Your task to perform on an android device: toggle javascript in the chrome app Image 0: 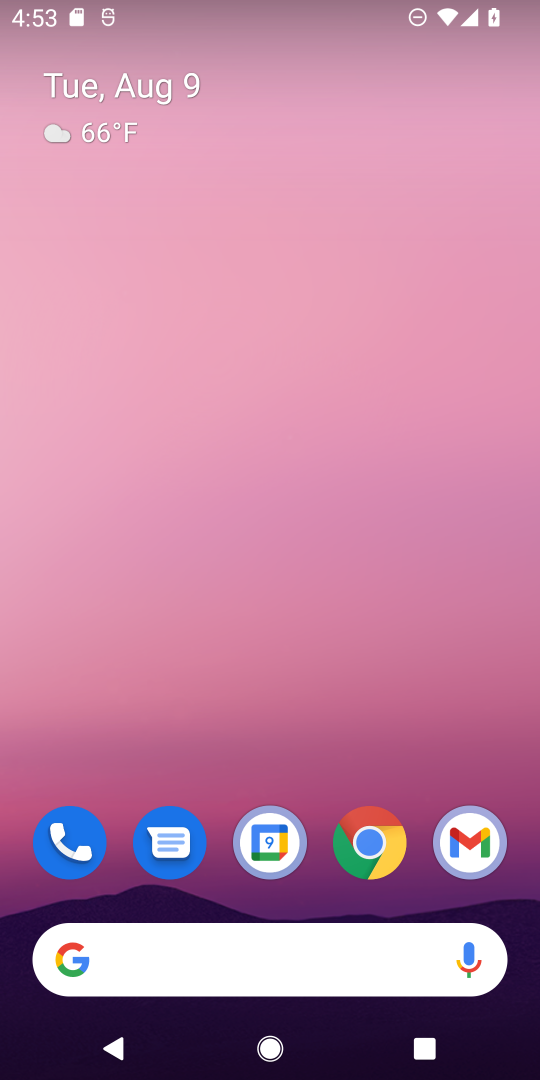
Step 0: drag from (361, 944) to (330, 423)
Your task to perform on an android device: toggle javascript in the chrome app Image 1: 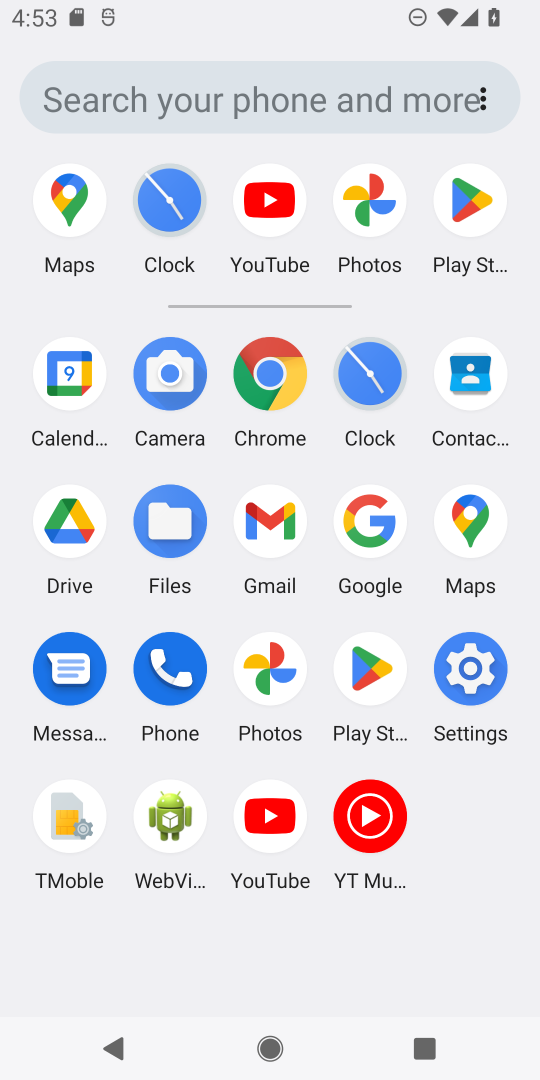
Step 1: click (278, 361)
Your task to perform on an android device: toggle javascript in the chrome app Image 2: 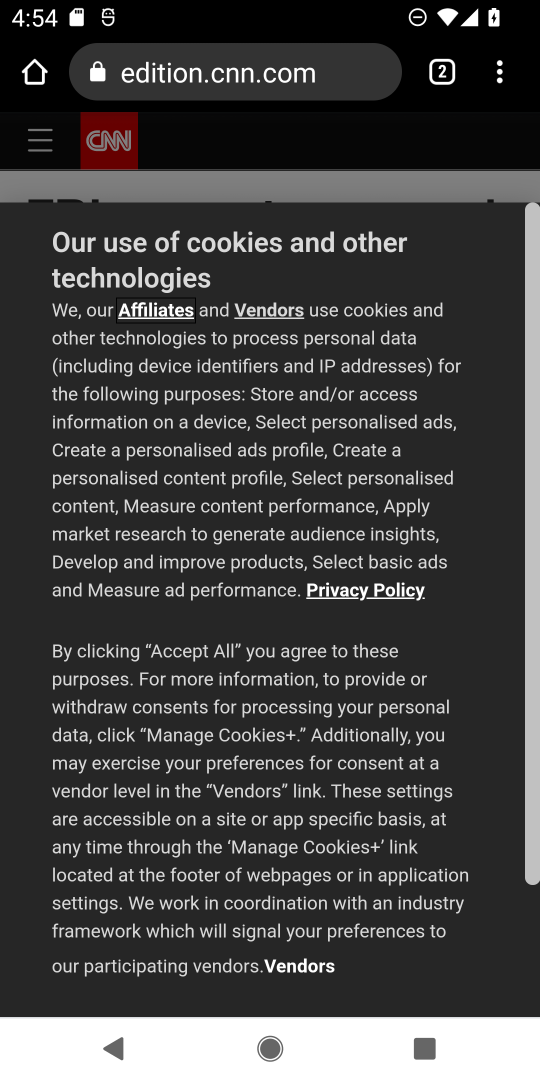
Step 2: click (512, 54)
Your task to perform on an android device: toggle javascript in the chrome app Image 3: 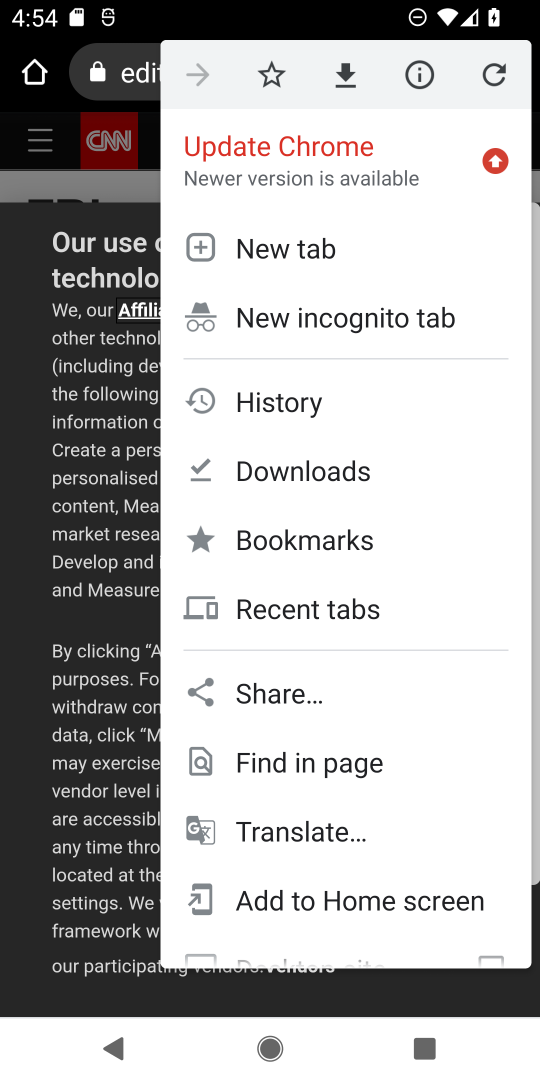
Step 3: drag from (419, 823) to (398, 291)
Your task to perform on an android device: toggle javascript in the chrome app Image 4: 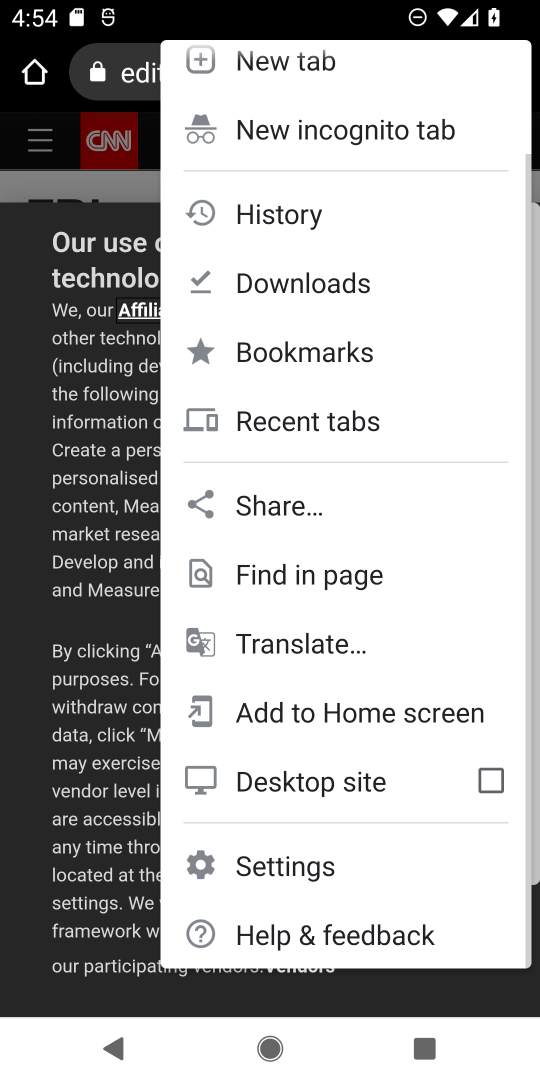
Step 4: click (332, 869)
Your task to perform on an android device: toggle javascript in the chrome app Image 5: 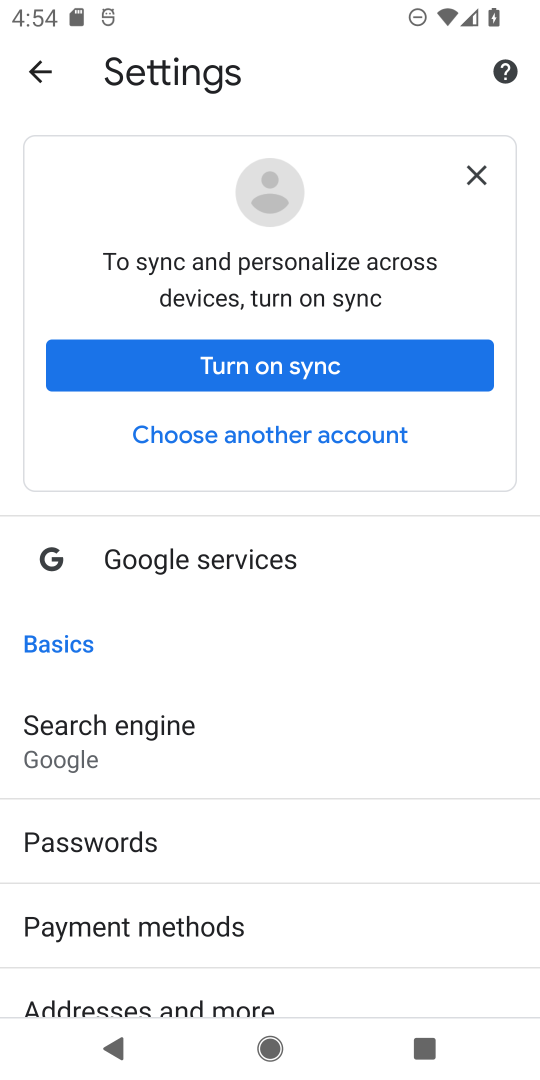
Step 5: drag from (447, 724) to (330, 134)
Your task to perform on an android device: toggle javascript in the chrome app Image 6: 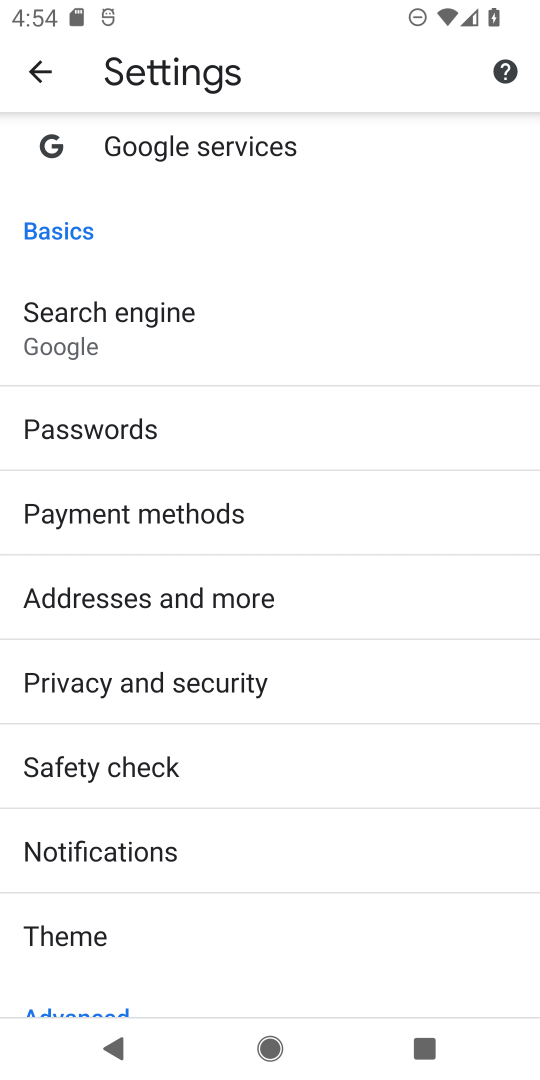
Step 6: drag from (299, 950) to (356, 440)
Your task to perform on an android device: toggle javascript in the chrome app Image 7: 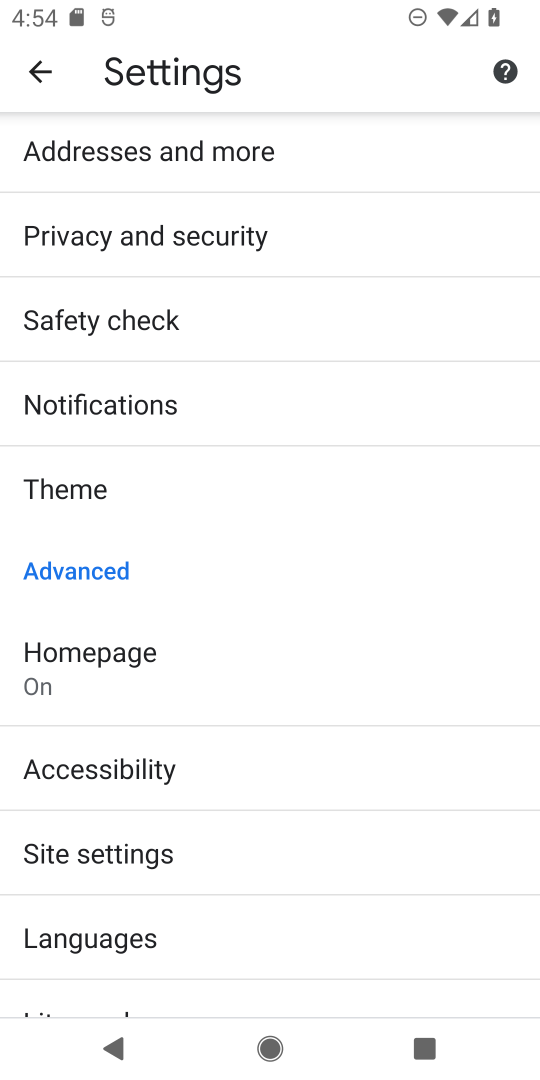
Step 7: click (199, 864)
Your task to perform on an android device: toggle javascript in the chrome app Image 8: 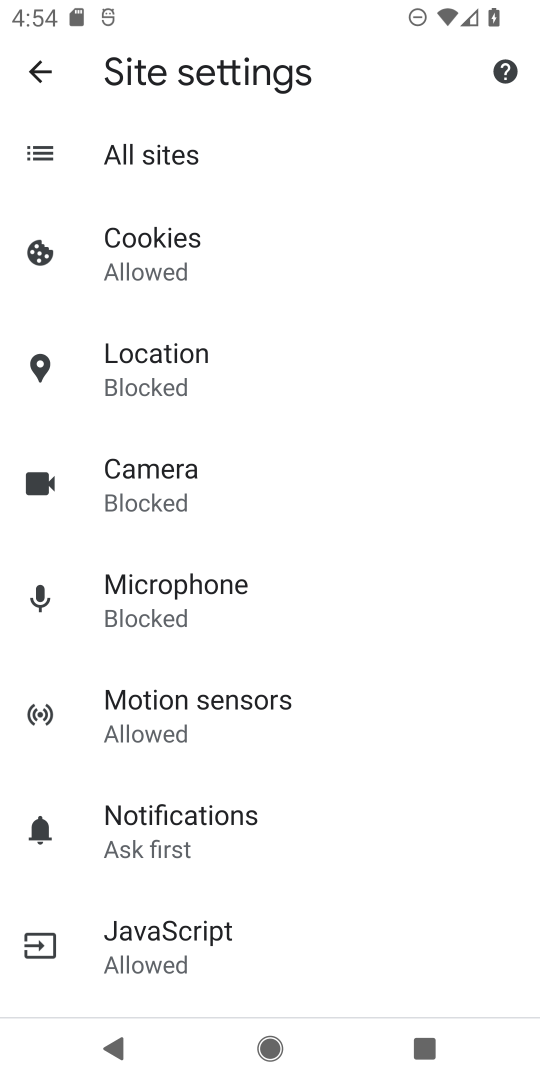
Step 8: click (142, 960)
Your task to perform on an android device: toggle javascript in the chrome app Image 9: 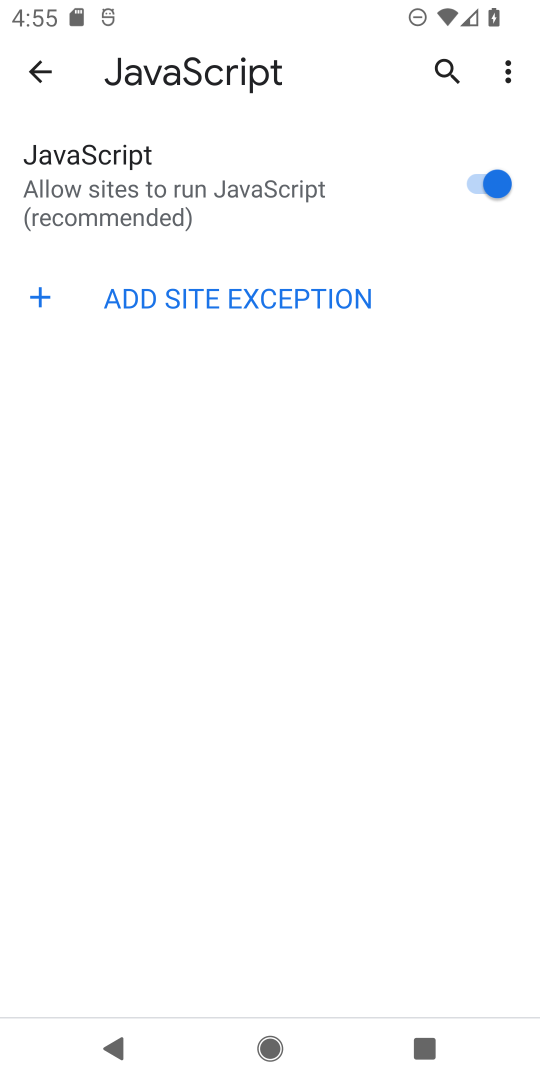
Step 9: click (484, 185)
Your task to perform on an android device: toggle javascript in the chrome app Image 10: 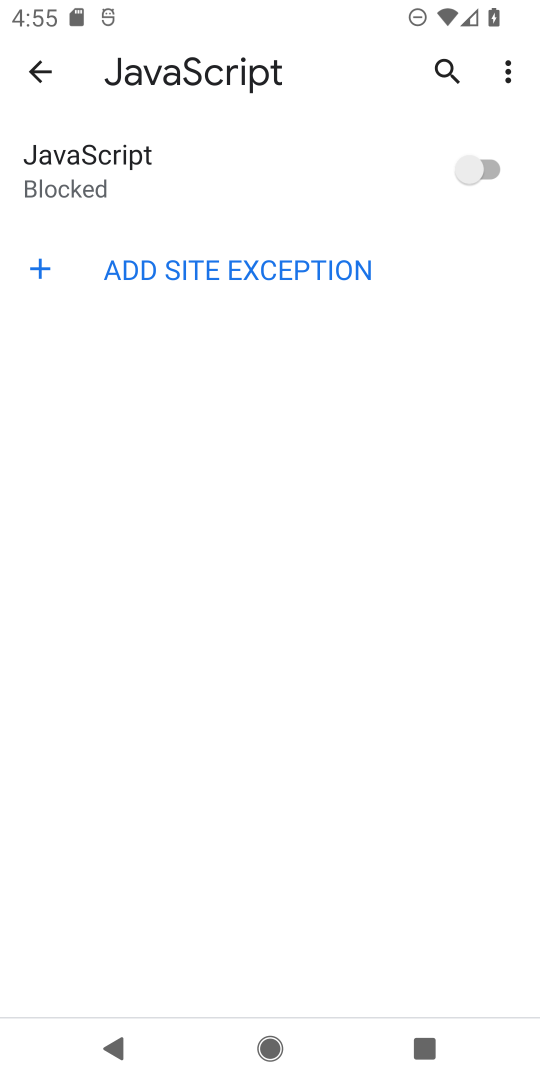
Step 10: task complete